Your task to perform on an android device: toggle pop-ups in chrome Image 0: 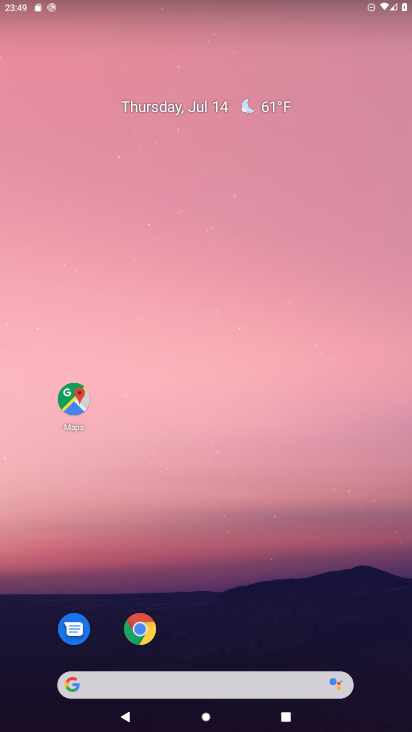
Step 0: click (136, 626)
Your task to perform on an android device: toggle pop-ups in chrome Image 1: 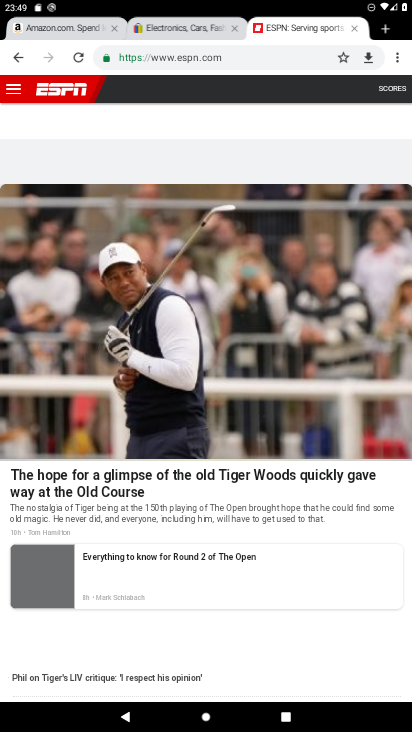
Step 1: click (404, 57)
Your task to perform on an android device: toggle pop-ups in chrome Image 2: 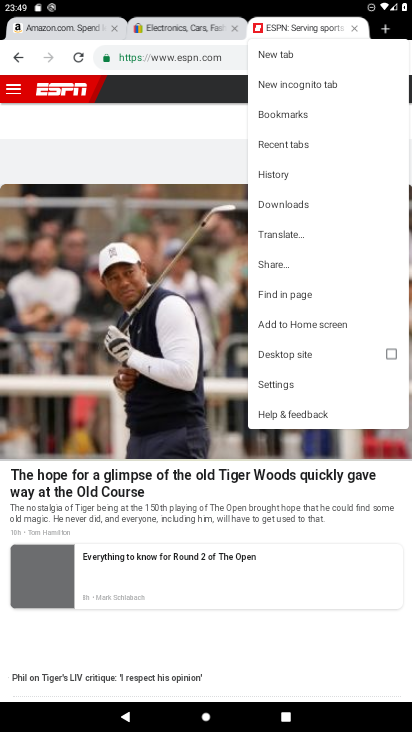
Step 2: click (281, 386)
Your task to perform on an android device: toggle pop-ups in chrome Image 3: 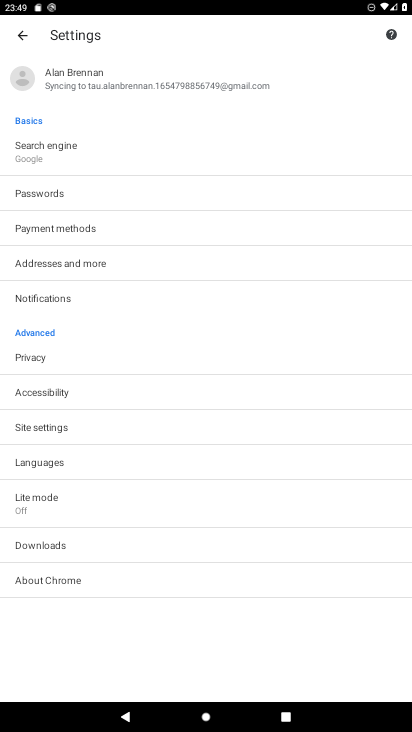
Step 3: click (50, 428)
Your task to perform on an android device: toggle pop-ups in chrome Image 4: 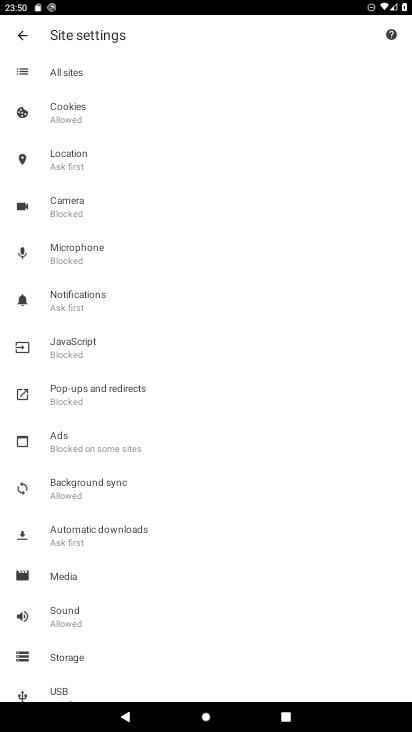
Step 4: click (109, 401)
Your task to perform on an android device: toggle pop-ups in chrome Image 5: 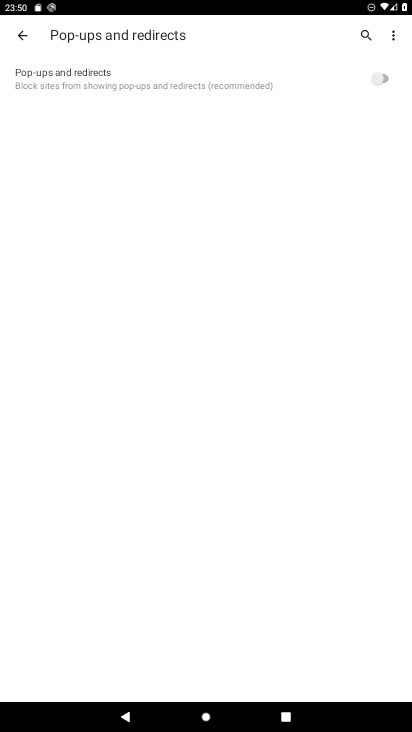
Step 5: click (382, 77)
Your task to perform on an android device: toggle pop-ups in chrome Image 6: 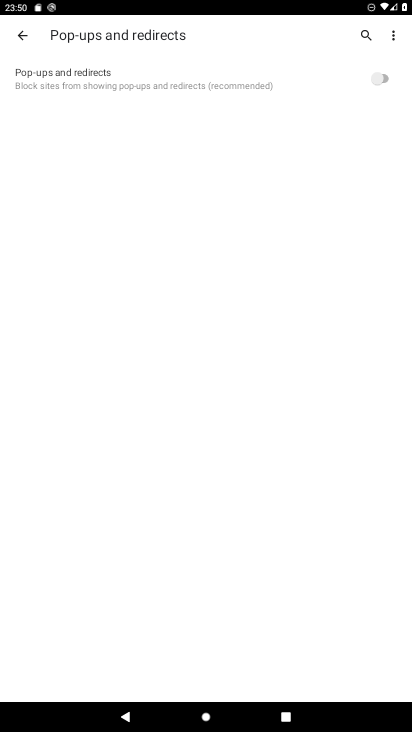
Step 6: click (382, 77)
Your task to perform on an android device: toggle pop-ups in chrome Image 7: 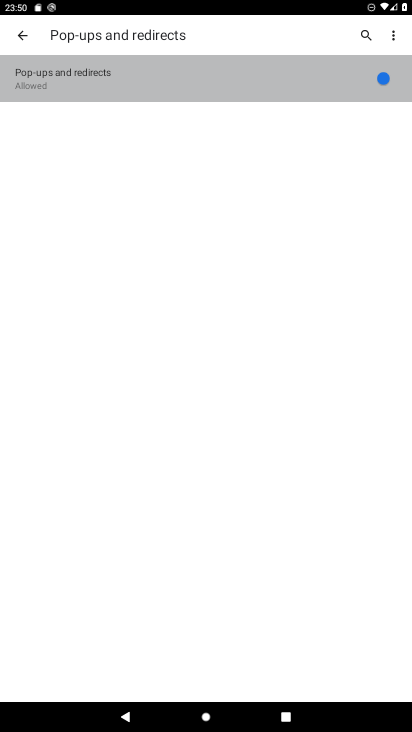
Step 7: click (382, 77)
Your task to perform on an android device: toggle pop-ups in chrome Image 8: 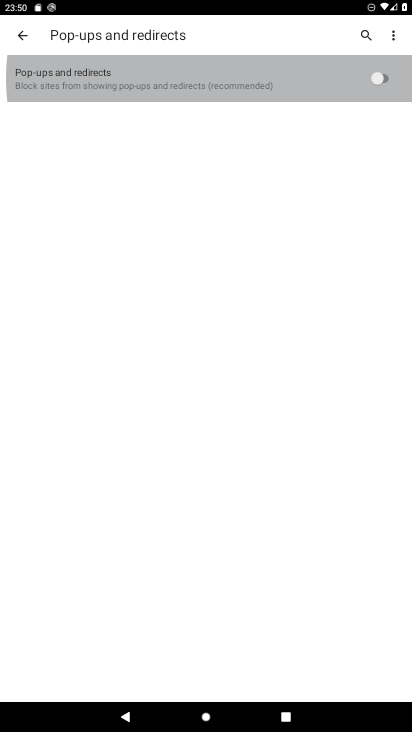
Step 8: click (382, 77)
Your task to perform on an android device: toggle pop-ups in chrome Image 9: 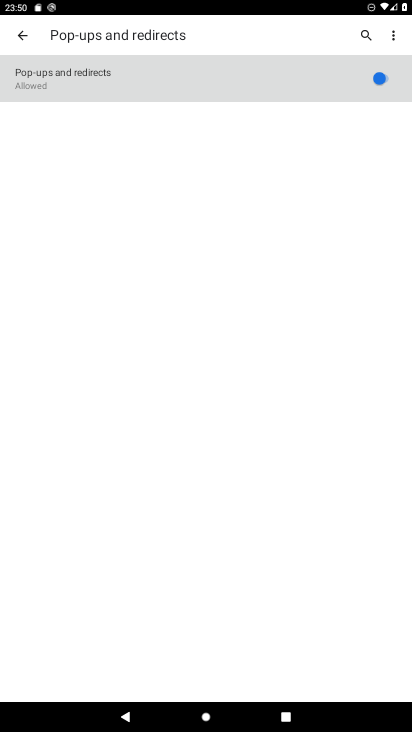
Step 9: click (382, 77)
Your task to perform on an android device: toggle pop-ups in chrome Image 10: 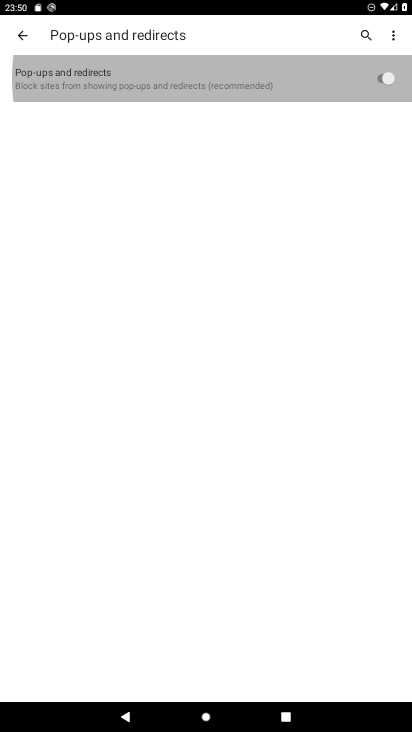
Step 10: click (382, 77)
Your task to perform on an android device: toggle pop-ups in chrome Image 11: 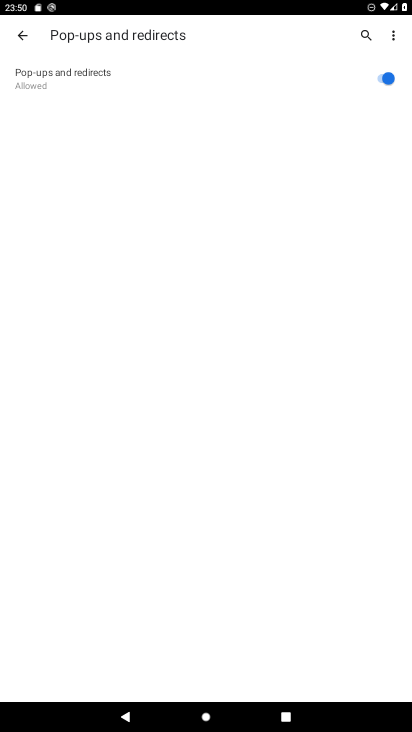
Step 11: click (382, 77)
Your task to perform on an android device: toggle pop-ups in chrome Image 12: 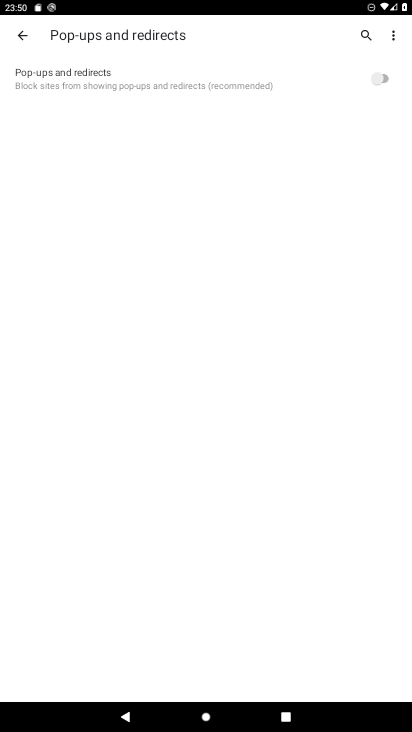
Step 12: task complete